Your task to perform on an android device: Show me productivity apps on the Play Store Image 0: 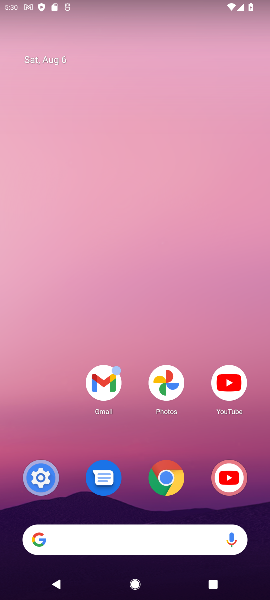
Step 0: press home button
Your task to perform on an android device: Show me productivity apps on the Play Store Image 1: 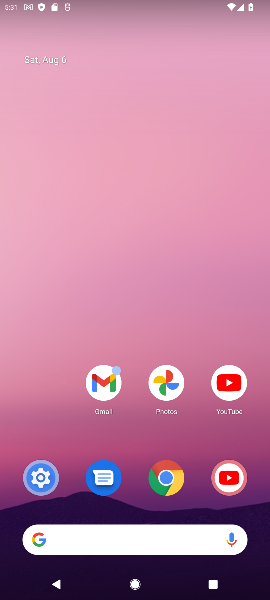
Step 1: drag from (146, 505) to (164, 95)
Your task to perform on an android device: Show me productivity apps on the Play Store Image 2: 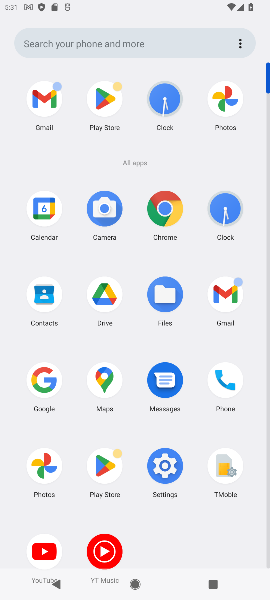
Step 2: click (107, 470)
Your task to perform on an android device: Show me productivity apps on the Play Store Image 3: 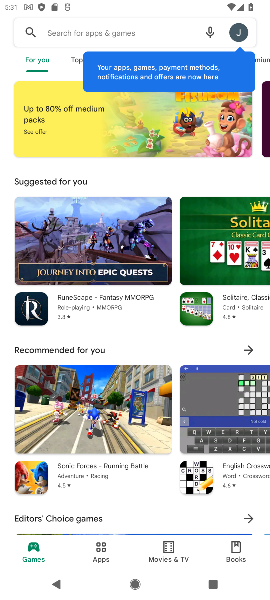
Step 3: click (100, 551)
Your task to perform on an android device: Show me productivity apps on the Play Store Image 4: 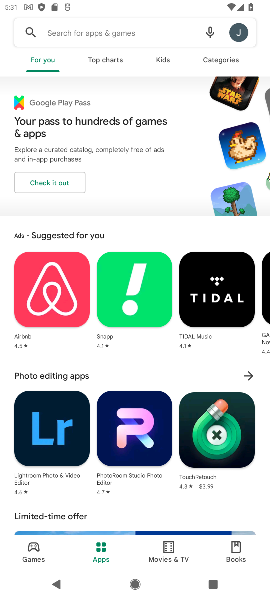
Step 4: click (222, 55)
Your task to perform on an android device: Show me productivity apps on the Play Store Image 5: 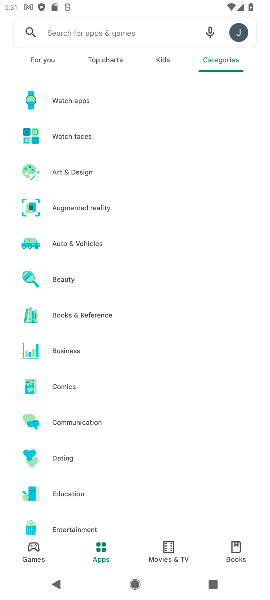
Step 5: drag from (139, 482) to (93, 53)
Your task to perform on an android device: Show me productivity apps on the Play Store Image 6: 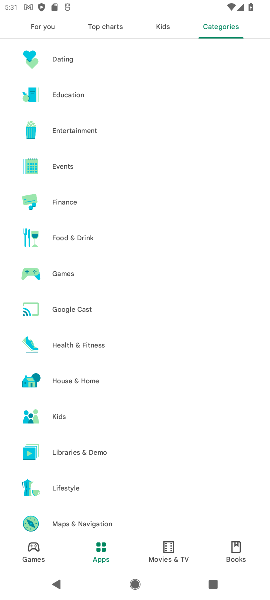
Step 6: drag from (188, 466) to (154, 95)
Your task to perform on an android device: Show me productivity apps on the Play Store Image 7: 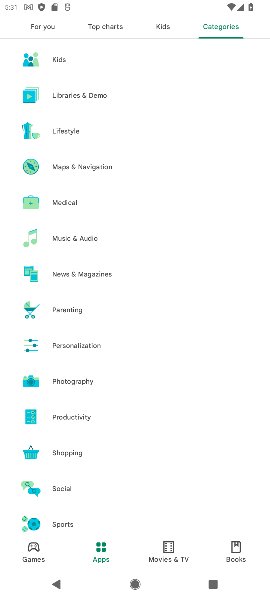
Step 7: drag from (136, 427) to (43, 18)
Your task to perform on an android device: Show me productivity apps on the Play Store Image 8: 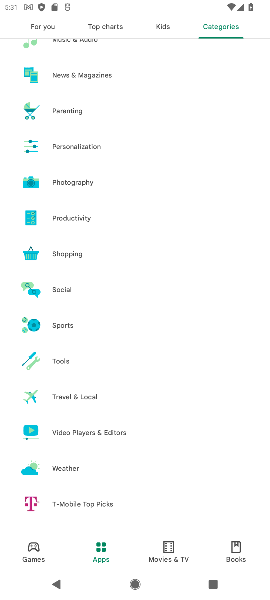
Step 8: drag from (198, 470) to (154, 229)
Your task to perform on an android device: Show me productivity apps on the Play Store Image 9: 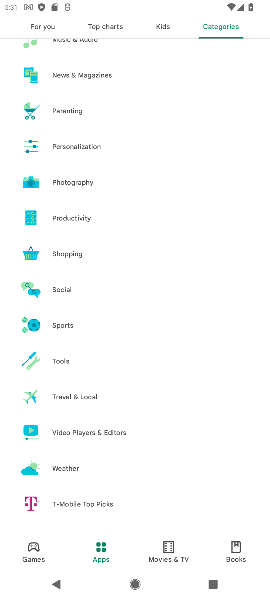
Step 9: click (68, 211)
Your task to perform on an android device: Show me productivity apps on the Play Store Image 10: 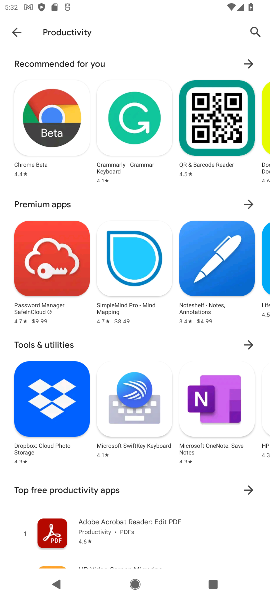
Step 10: task complete